Your task to perform on an android device: toggle show notifications on the lock screen Image 0: 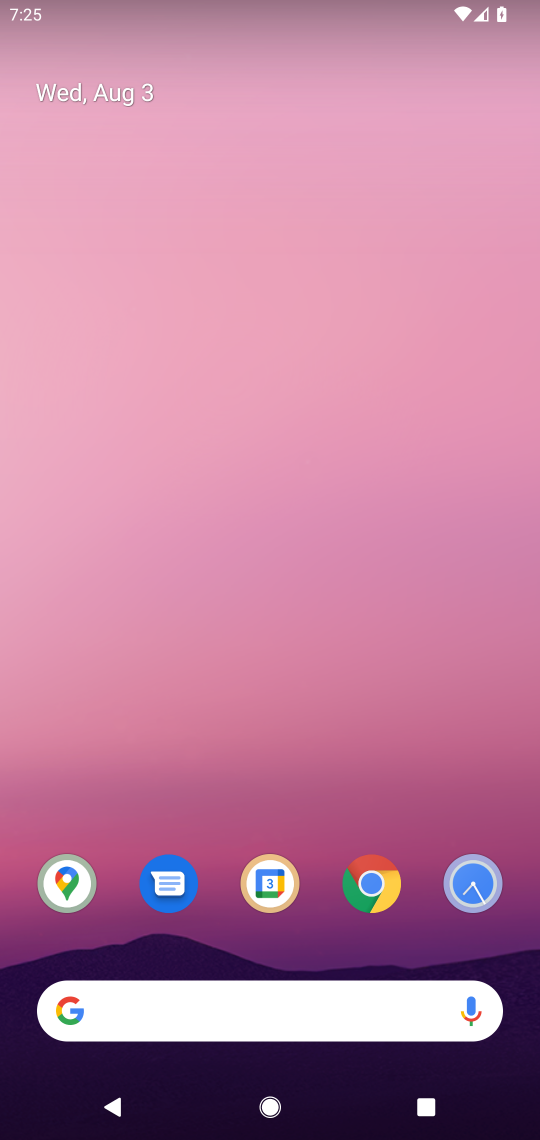
Step 0: drag from (414, 820) to (355, 96)
Your task to perform on an android device: toggle show notifications on the lock screen Image 1: 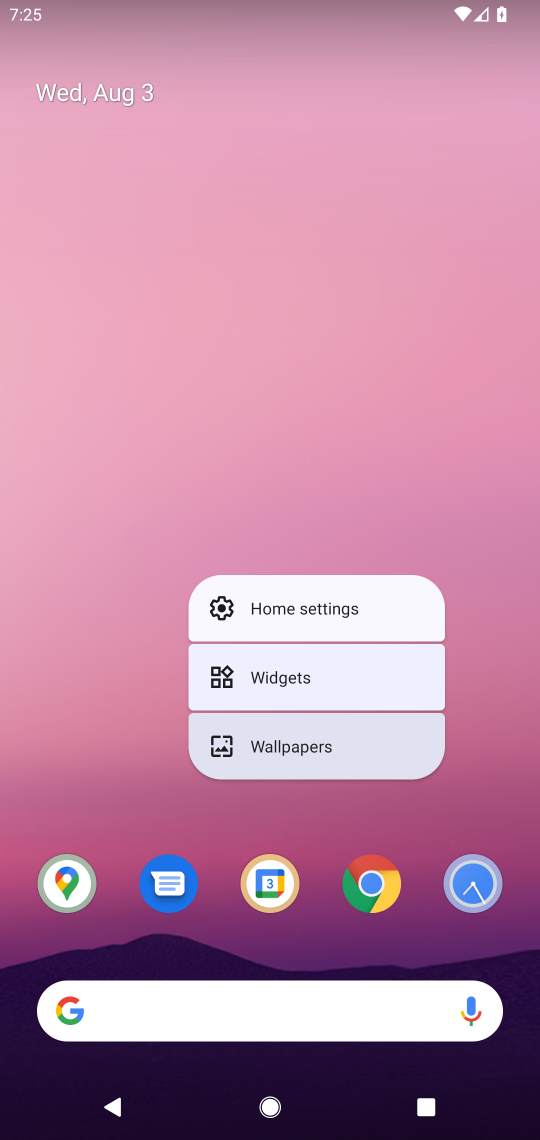
Step 1: drag from (529, 974) to (435, 180)
Your task to perform on an android device: toggle show notifications on the lock screen Image 2: 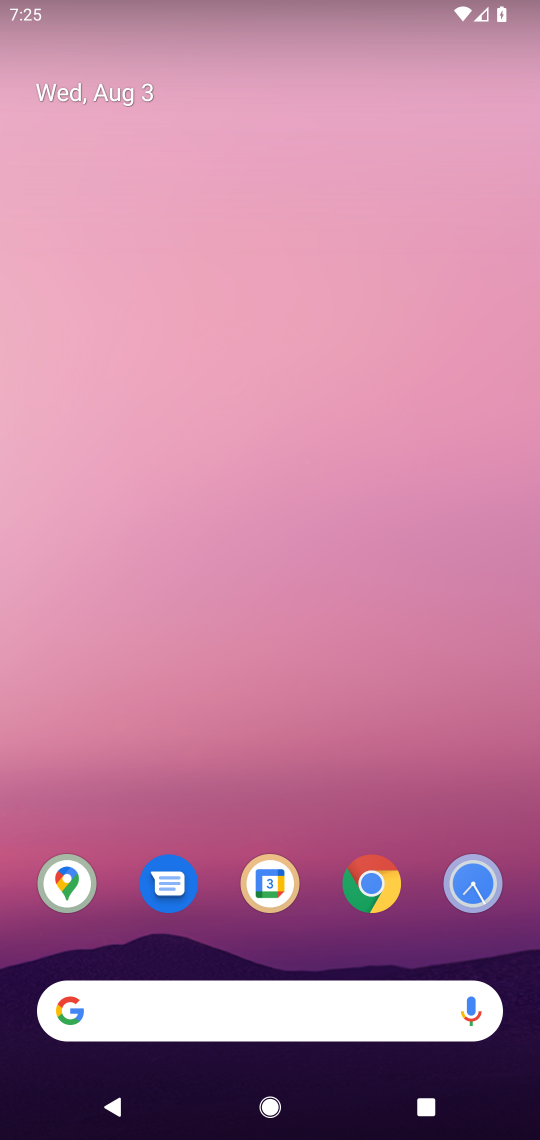
Step 2: drag from (532, 1023) to (456, 195)
Your task to perform on an android device: toggle show notifications on the lock screen Image 3: 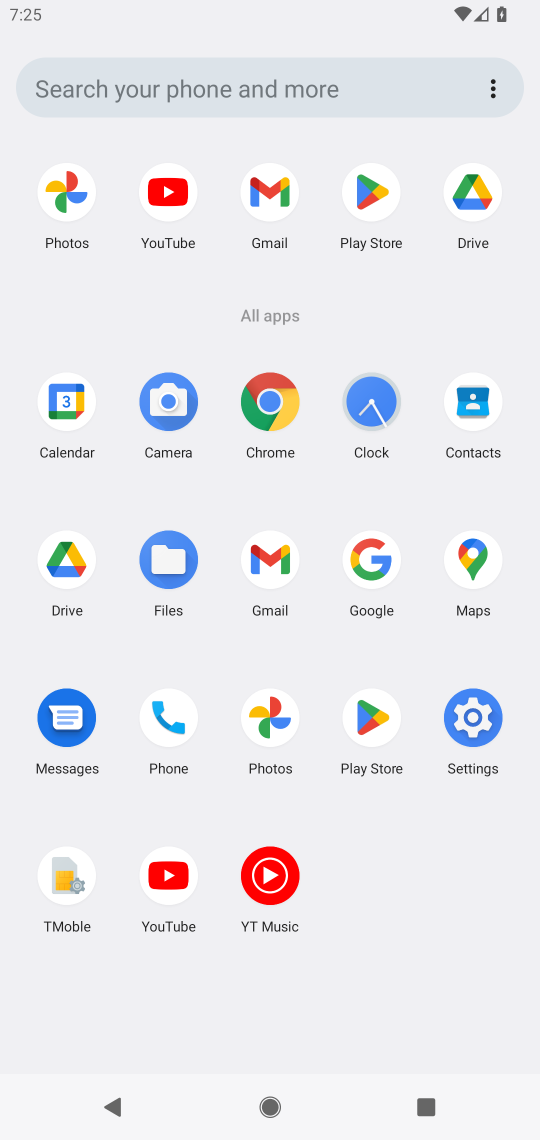
Step 3: click (473, 730)
Your task to perform on an android device: toggle show notifications on the lock screen Image 4: 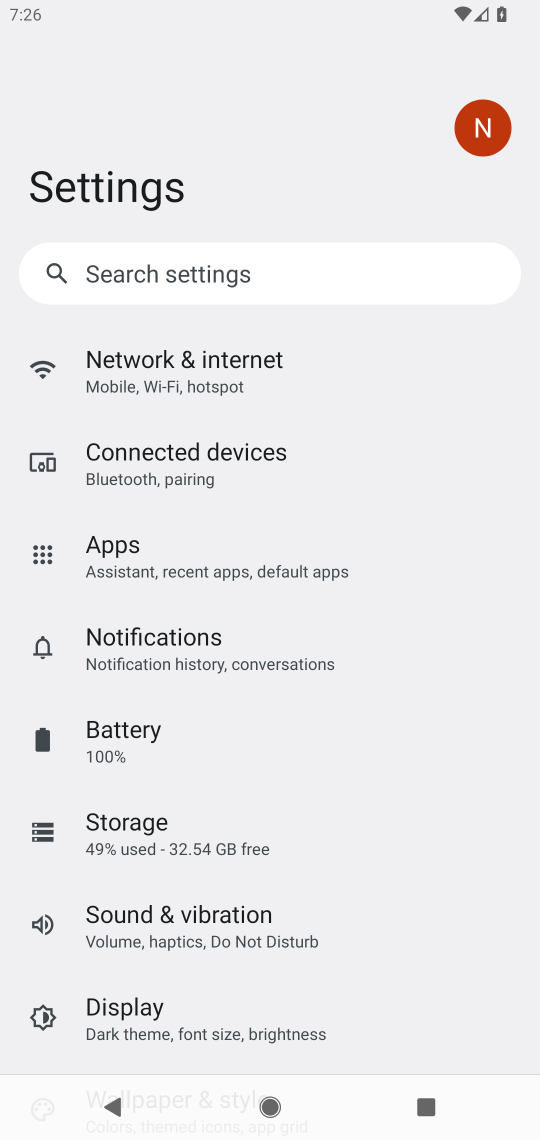
Step 4: click (237, 670)
Your task to perform on an android device: toggle show notifications on the lock screen Image 5: 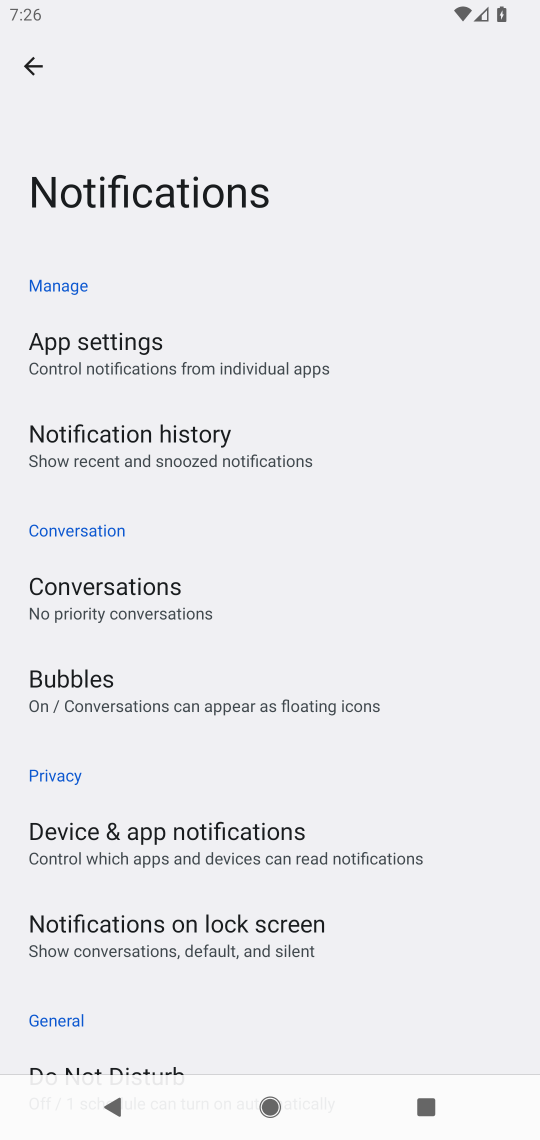
Step 5: click (261, 930)
Your task to perform on an android device: toggle show notifications on the lock screen Image 6: 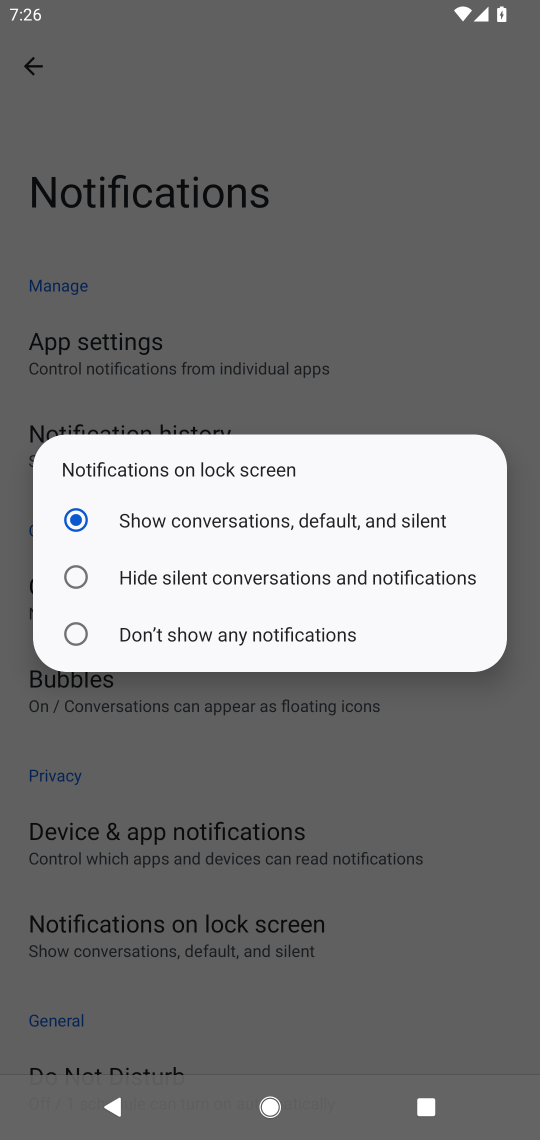
Step 6: click (314, 598)
Your task to perform on an android device: toggle show notifications on the lock screen Image 7: 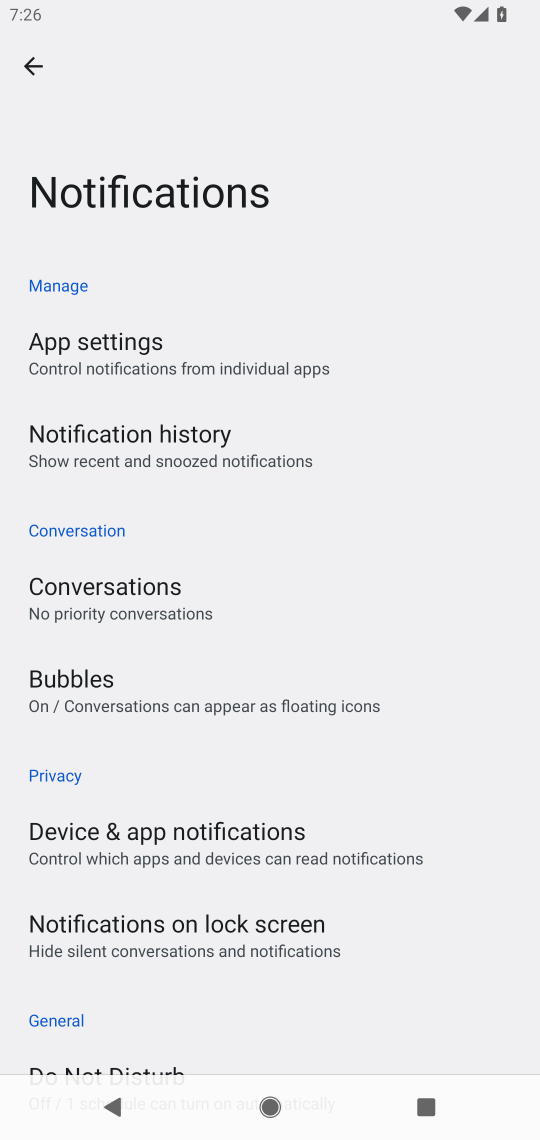
Step 7: task complete